Your task to perform on an android device: read, delete, or share a saved page in the chrome app Image 0: 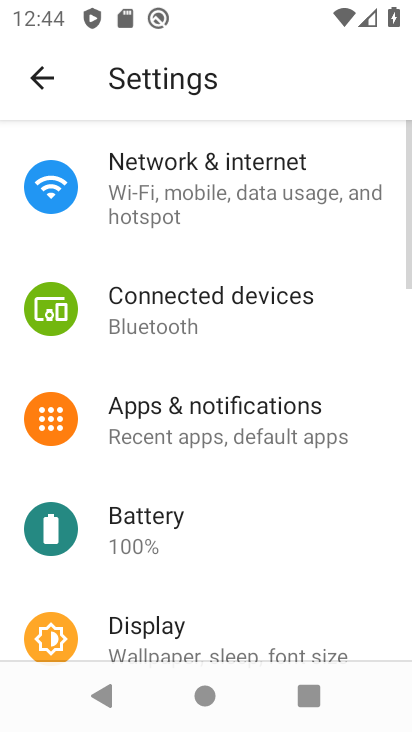
Step 0: press home button
Your task to perform on an android device: read, delete, or share a saved page in the chrome app Image 1: 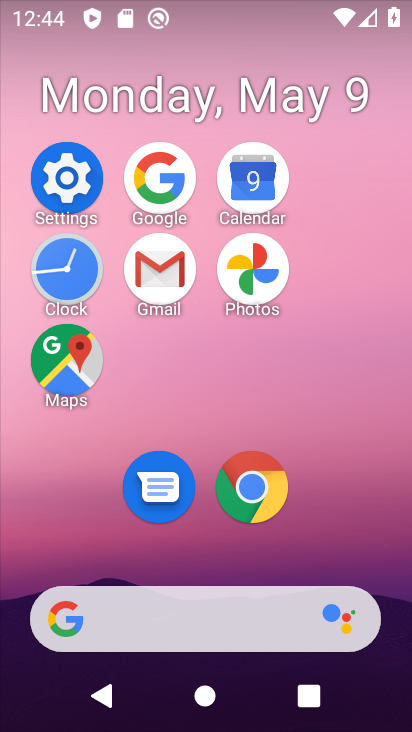
Step 1: click (246, 483)
Your task to perform on an android device: read, delete, or share a saved page in the chrome app Image 2: 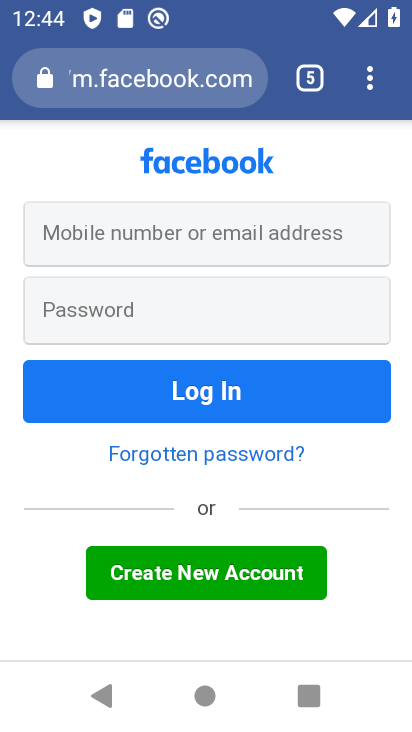
Step 2: click (379, 75)
Your task to perform on an android device: read, delete, or share a saved page in the chrome app Image 3: 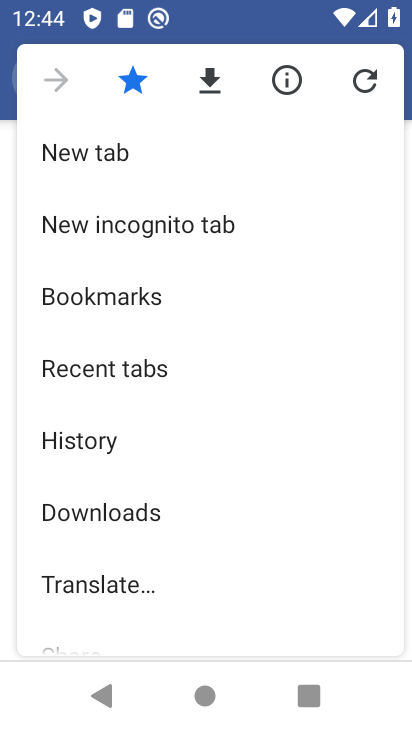
Step 3: click (183, 508)
Your task to perform on an android device: read, delete, or share a saved page in the chrome app Image 4: 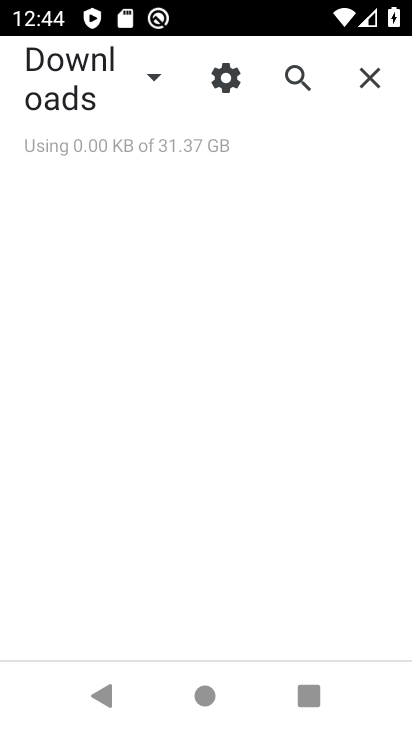
Step 4: task complete